Your task to perform on an android device: Open Wikipedia Image 0: 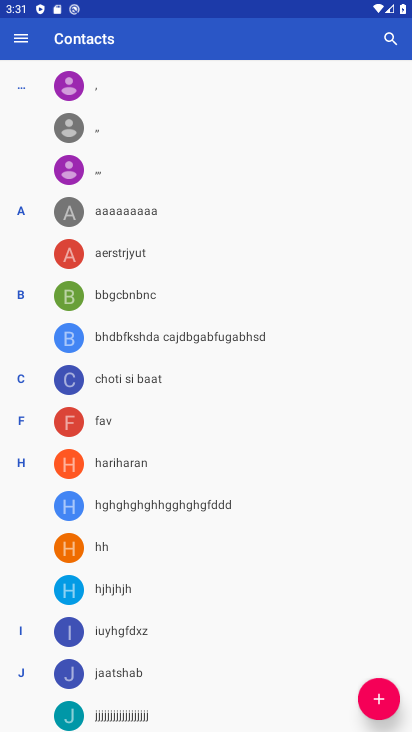
Step 0: press home button
Your task to perform on an android device: Open Wikipedia Image 1: 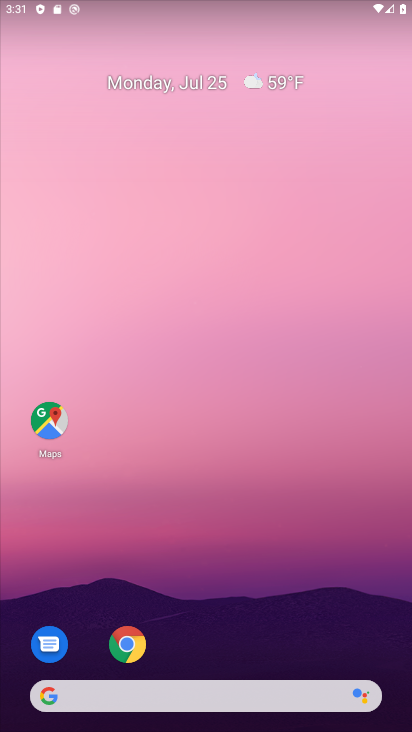
Step 1: click (122, 649)
Your task to perform on an android device: Open Wikipedia Image 2: 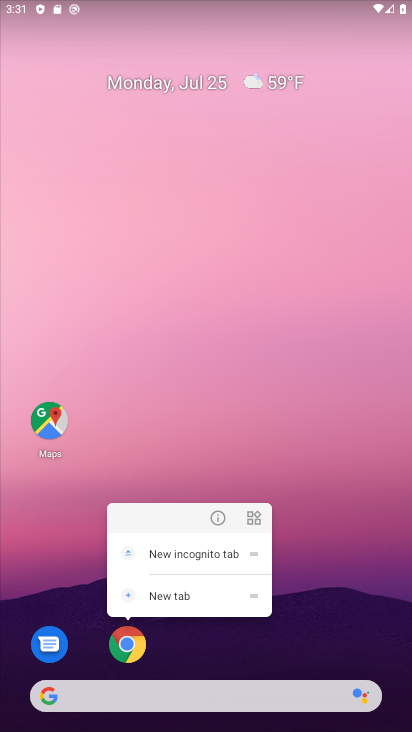
Step 2: click (122, 649)
Your task to perform on an android device: Open Wikipedia Image 3: 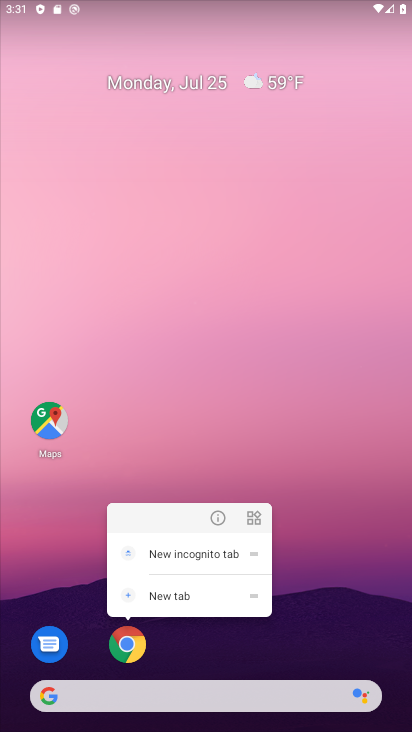
Step 3: click (133, 644)
Your task to perform on an android device: Open Wikipedia Image 4: 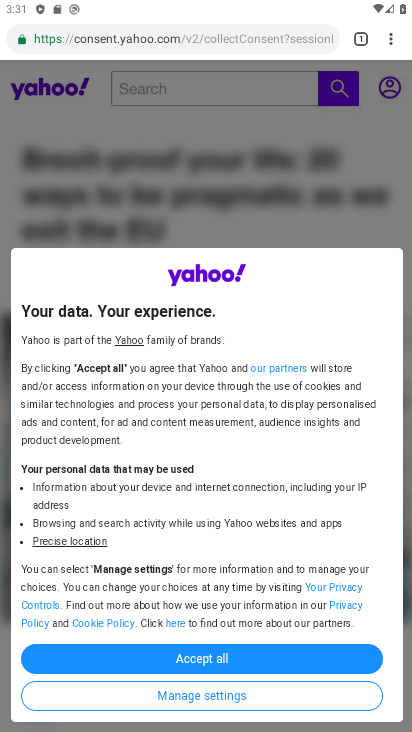
Step 4: click (361, 36)
Your task to perform on an android device: Open Wikipedia Image 5: 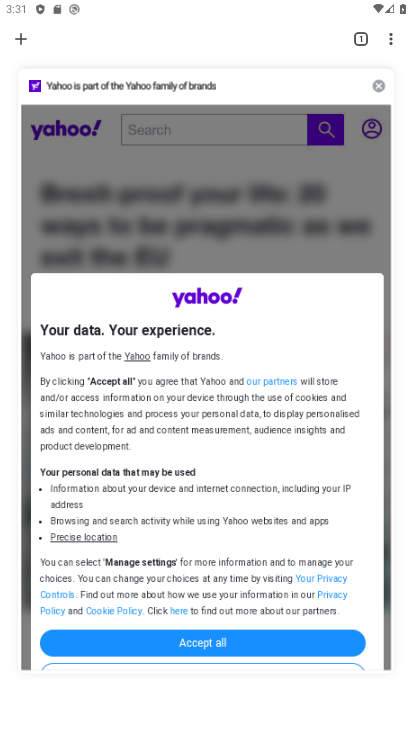
Step 5: click (379, 86)
Your task to perform on an android device: Open Wikipedia Image 6: 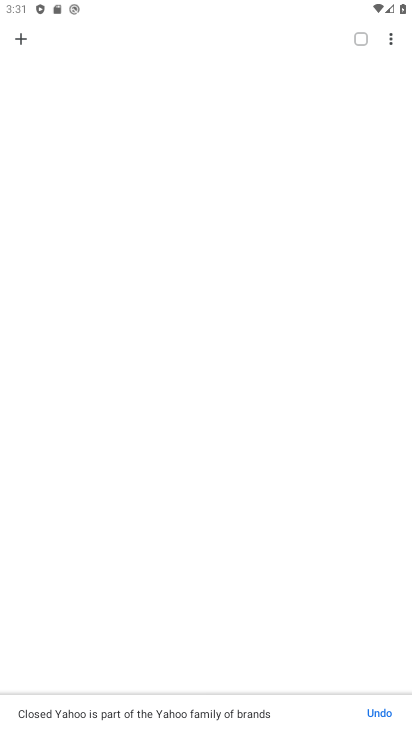
Step 6: click (15, 37)
Your task to perform on an android device: Open Wikipedia Image 7: 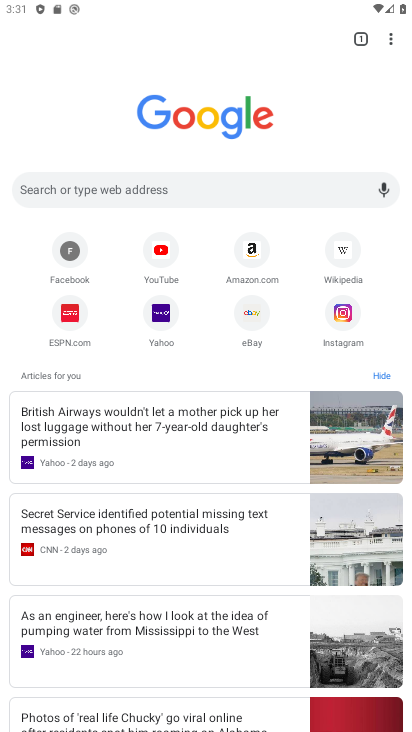
Step 7: click (347, 251)
Your task to perform on an android device: Open Wikipedia Image 8: 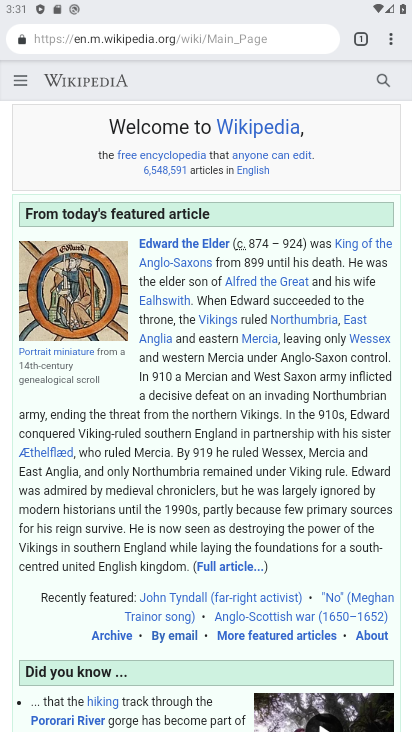
Step 8: task complete